Your task to perform on an android device: move a message to another label in the gmail app Image 0: 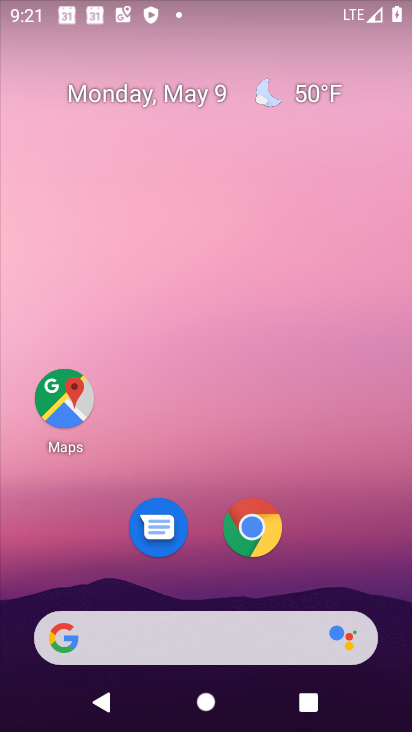
Step 0: drag from (219, 556) to (234, 0)
Your task to perform on an android device: move a message to another label in the gmail app Image 1: 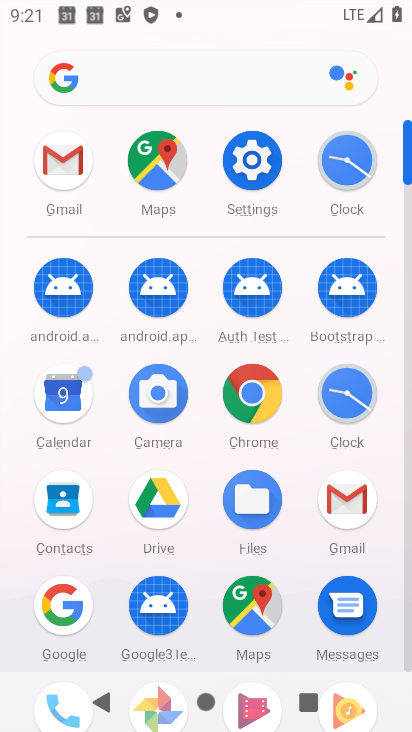
Step 1: click (354, 509)
Your task to perform on an android device: move a message to another label in the gmail app Image 2: 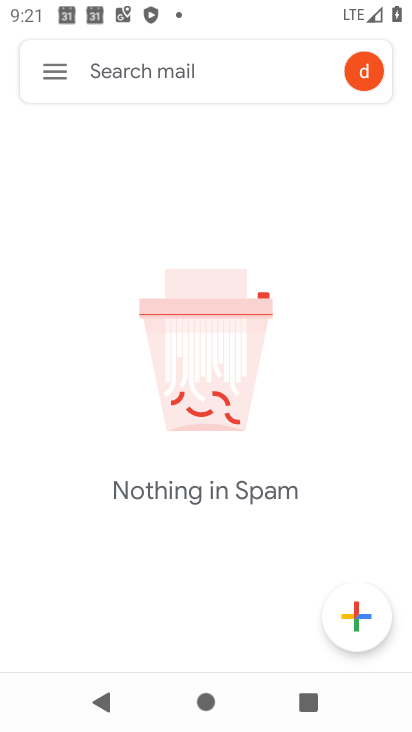
Step 2: click (58, 63)
Your task to perform on an android device: move a message to another label in the gmail app Image 3: 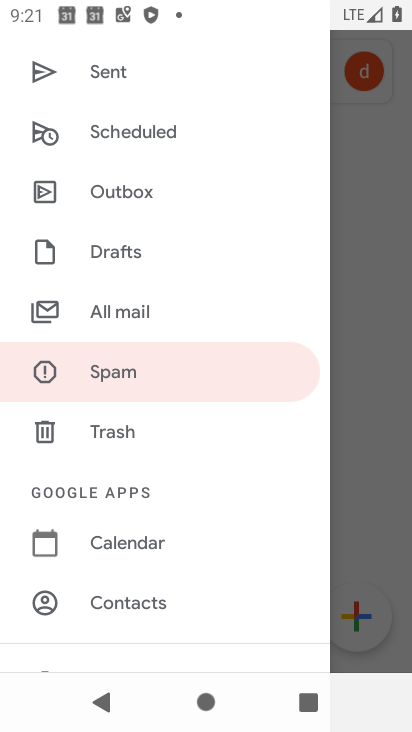
Step 3: click (139, 316)
Your task to perform on an android device: move a message to another label in the gmail app Image 4: 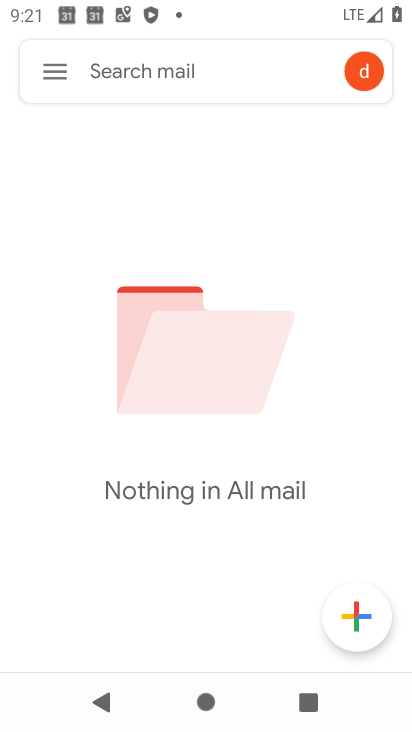
Step 4: task complete